Your task to perform on an android device: change the clock display to show seconds Image 0: 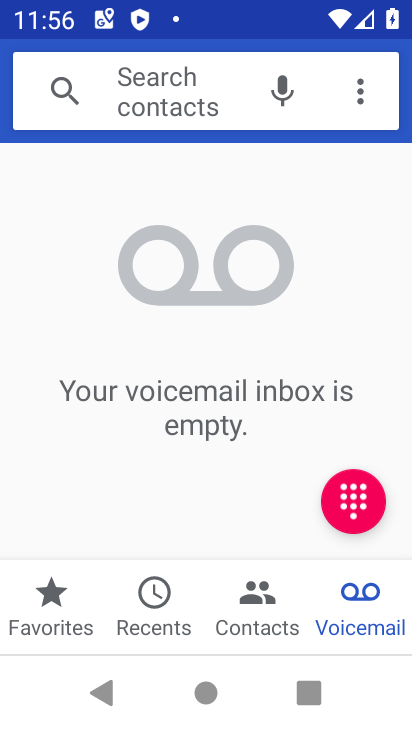
Step 0: press home button
Your task to perform on an android device: change the clock display to show seconds Image 1: 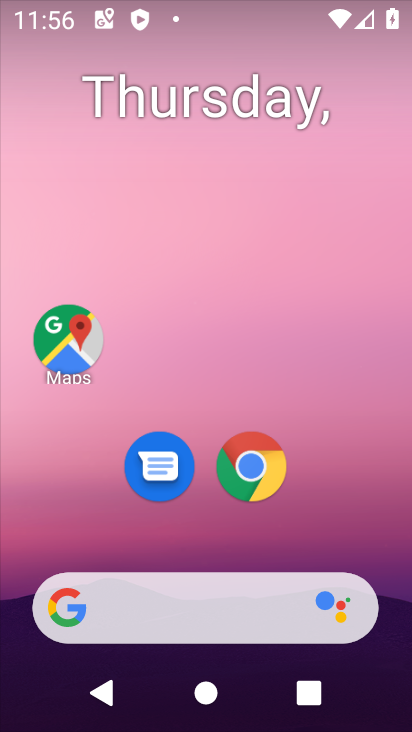
Step 1: drag from (392, 653) to (293, 24)
Your task to perform on an android device: change the clock display to show seconds Image 2: 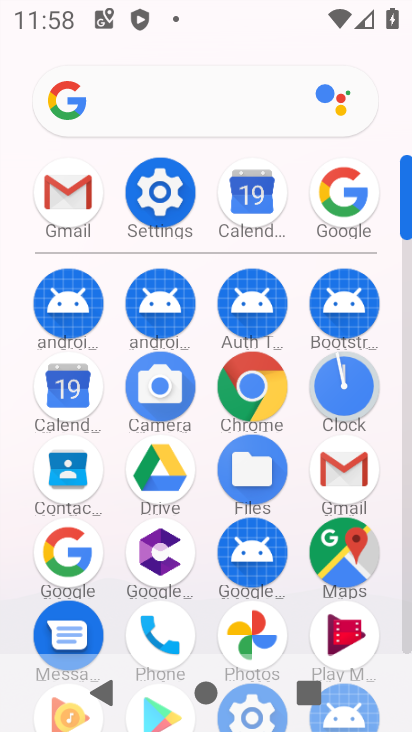
Step 2: click (346, 404)
Your task to perform on an android device: change the clock display to show seconds Image 3: 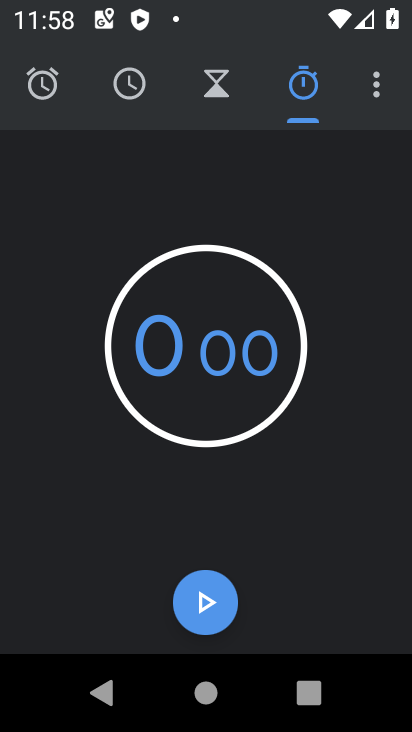
Step 3: click (368, 86)
Your task to perform on an android device: change the clock display to show seconds Image 4: 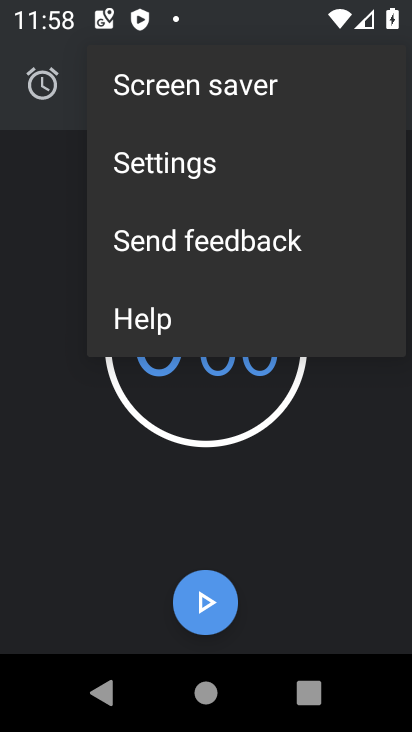
Step 4: click (248, 186)
Your task to perform on an android device: change the clock display to show seconds Image 5: 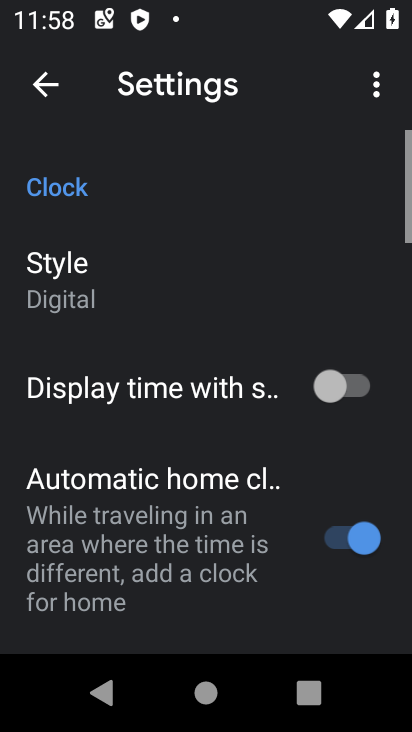
Step 5: click (328, 403)
Your task to perform on an android device: change the clock display to show seconds Image 6: 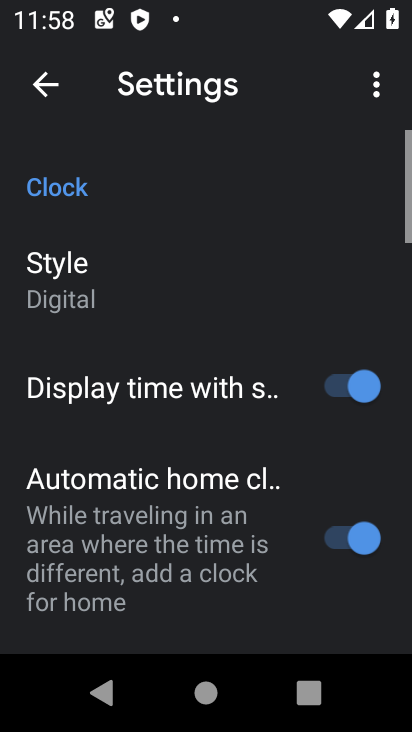
Step 6: task complete